Your task to perform on an android device: turn off airplane mode Image 0: 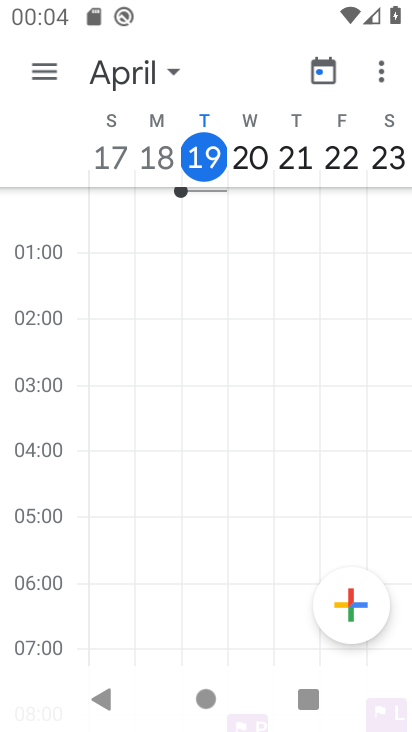
Step 0: press home button
Your task to perform on an android device: turn off airplane mode Image 1: 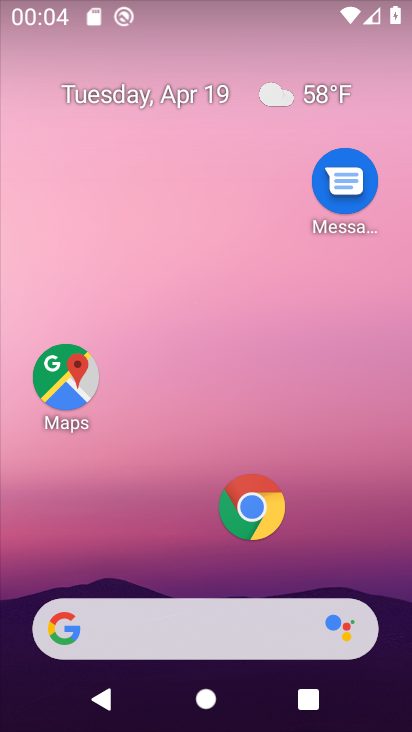
Step 1: drag from (170, 508) to (188, 0)
Your task to perform on an android device: turn off airplane mode Image 2: 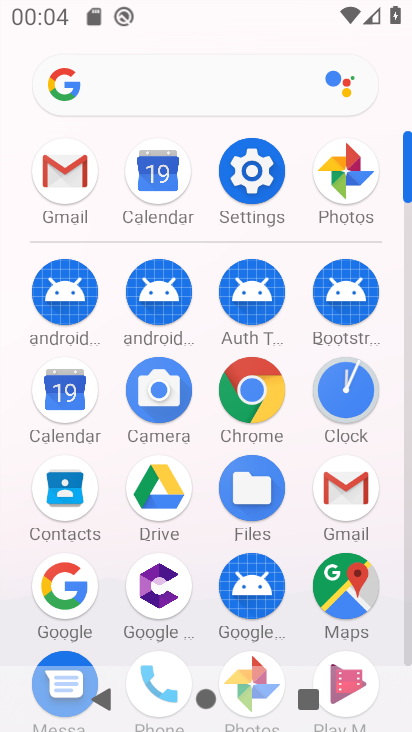
Step 2: click (253, 180)
Your task to perform on an android device: turn off airplane mode Image 3: 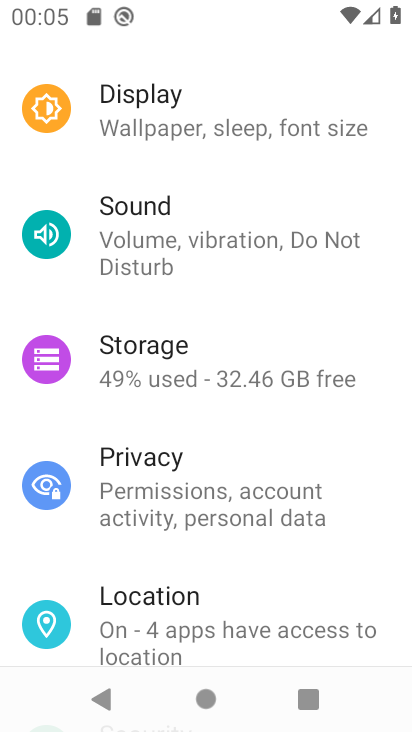
Step 3: drag from (222, 222) to (214, 569)
Your task to perform on an android device: turn off airplane mode Image 4: 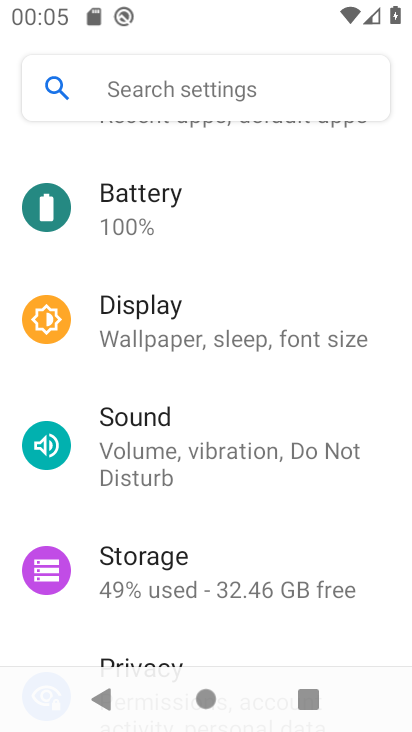
Step 4: drag from (212, 224) to (198, 503)
Your task to perform on an android device: turn off airplane mode Image 5: 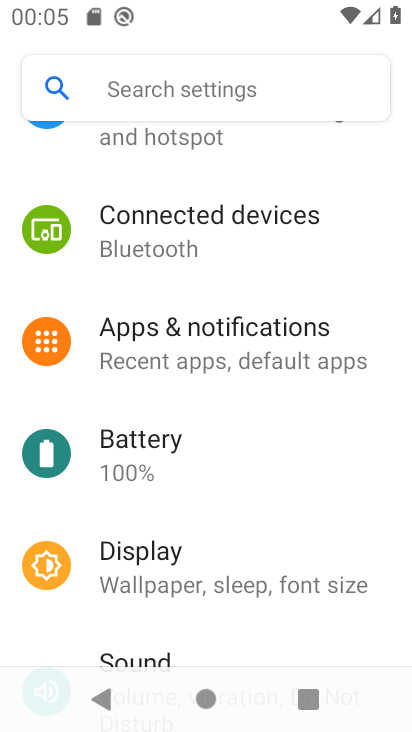
Step 5: click (203, 237)
Your task to perform on an android device: turn off airplane mode Image 6: 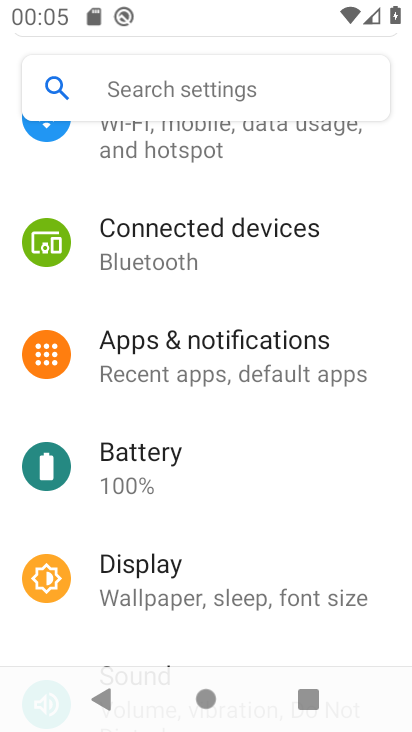
Step 6: drag from (194, 188) to (136, 682)
Your task to perform on an android device: turn off airplane mode Image 7: 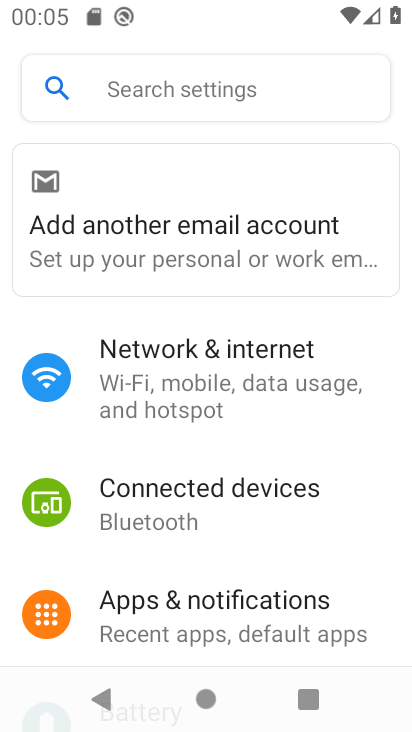
Step 7: click (182, 391)
Your task to perform on an android device: turn off airplane mode Image 8: 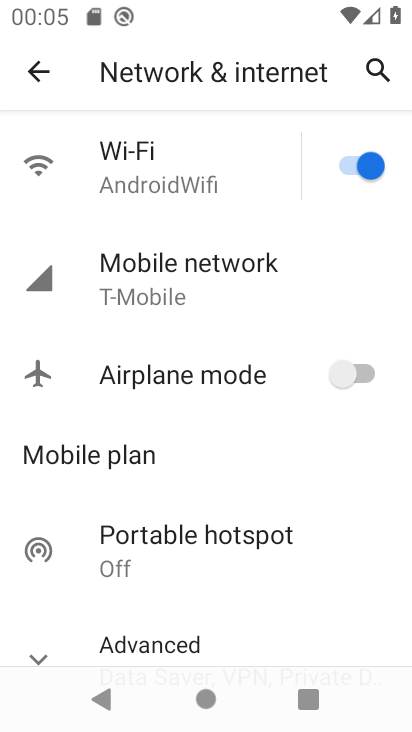
Step 8: task complete